Your task to perform on an android device: What is the recent news? Image 0: 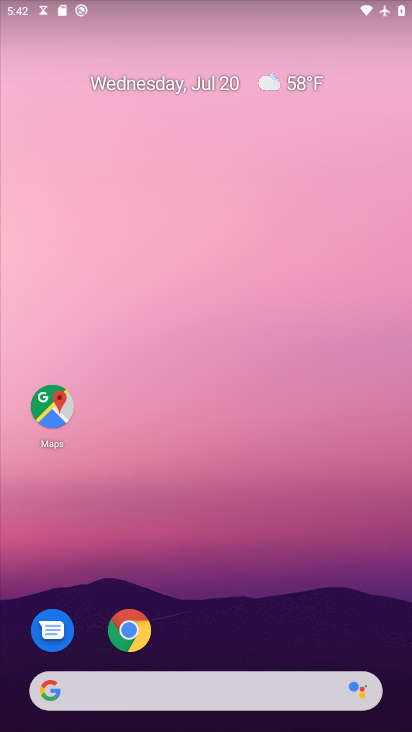
Step 0: press home button
Your task to perform on an android device: What is the recent news? Image 1: 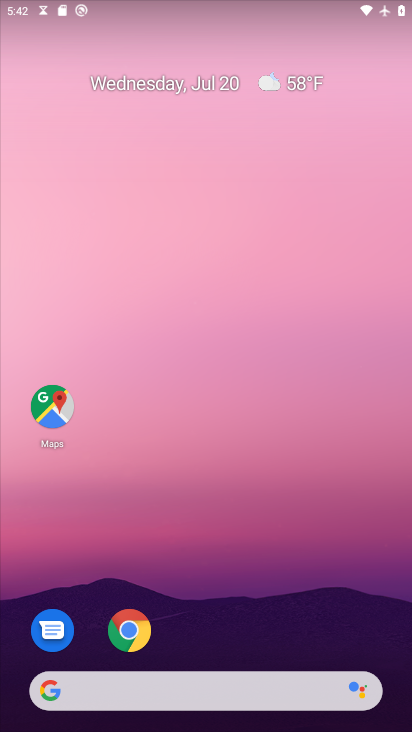
Step 1: press home button
Your task to perform on an android device: What is the recent news? Image 2: 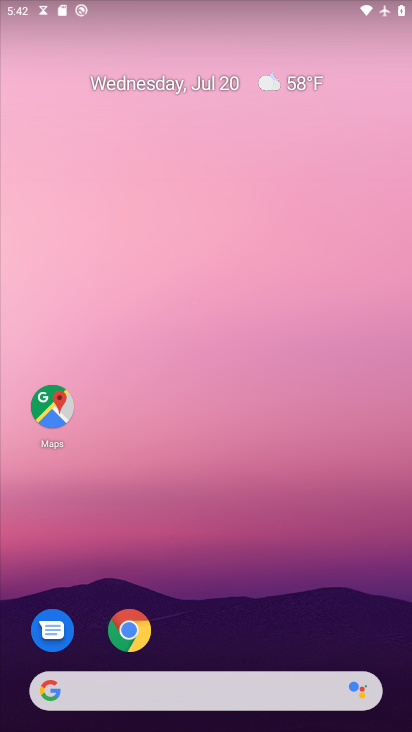
Step 2: click (45, 688)
Your task to perform on an android device: What is the recent news? Image 3: 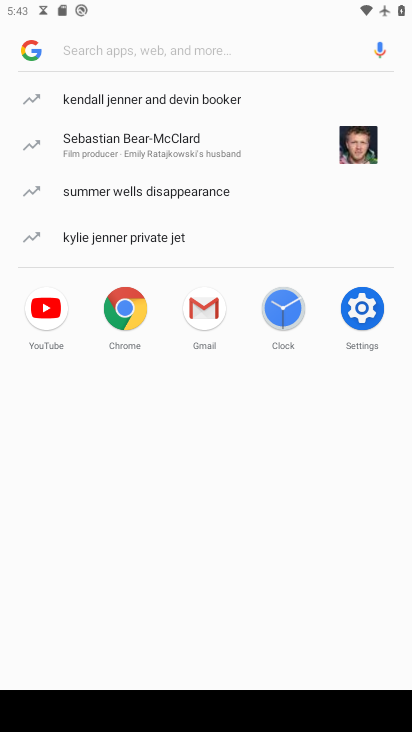
Step 3: type "recent news?"
Your task to perform on an android device: What is the recent news? Image 4: 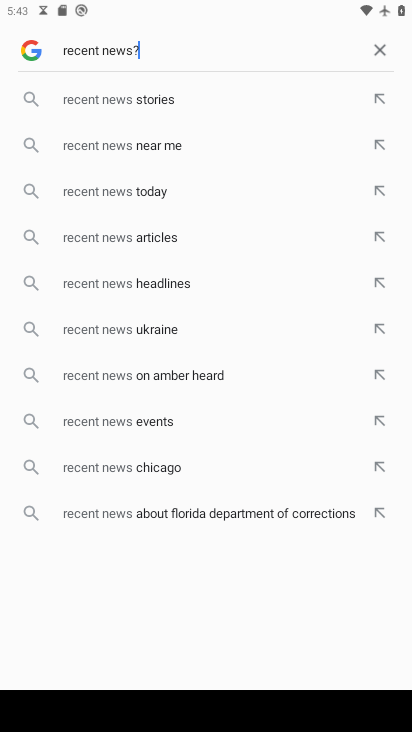
Step 4: press enter
Your task to perform on an android device: What is the recent news? Image 5: 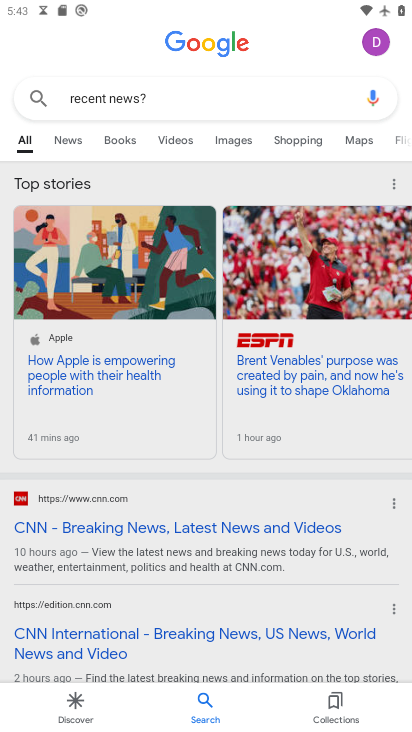
Step 5: task complete